Your task to perform on an android device: toggle airplane mode Image 0: 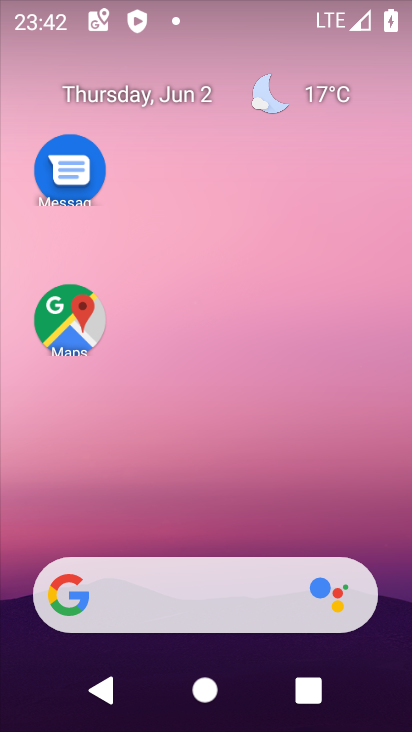
Step 0: press home button
Your task to perform on an android device: toggle airplane mode Image 1: 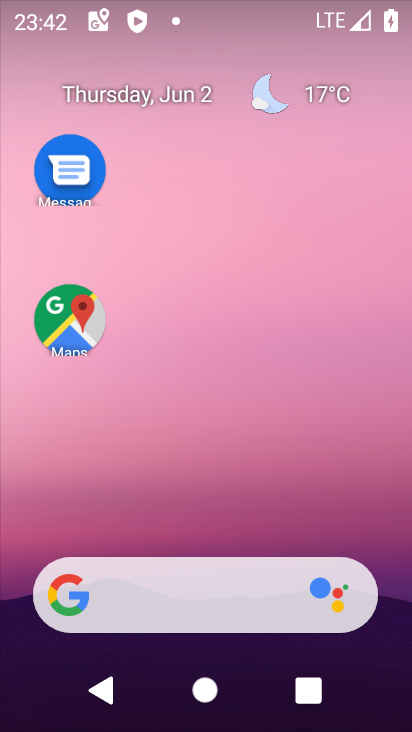
Step 1: drag from (341, 13) to (399, 582)
Your task to perform on an android device: toggle airplane mode Image 2: 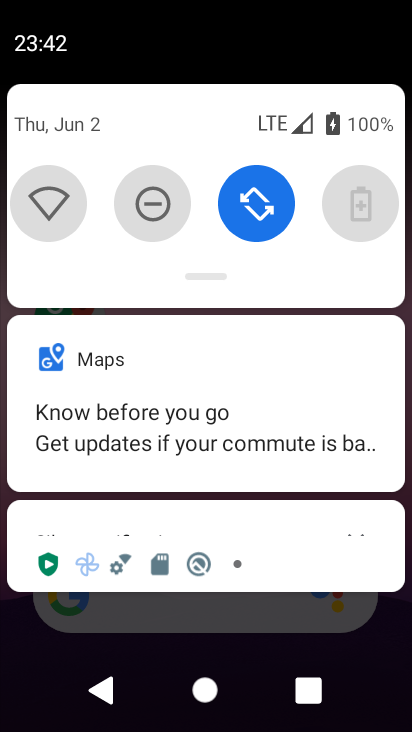
Step 2: drag from (220, 278) to (239, 563)
Your task to perform on an android device: toggle airplane mode Image 3: 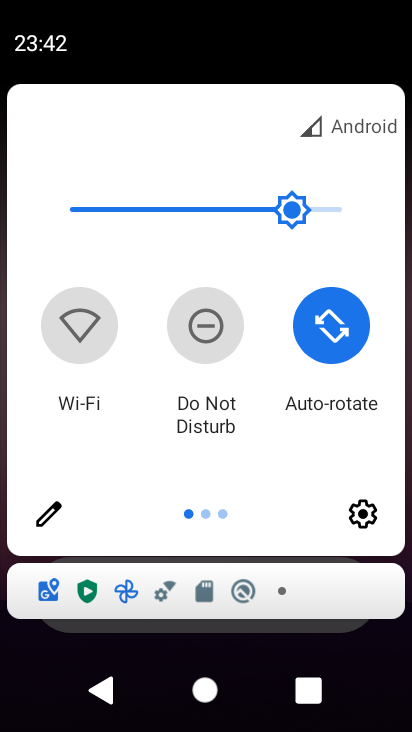
Step 3: drag from (395, 340) to (14, 433)
Your task to perform on an android device: toggle airplane mode Image 4: 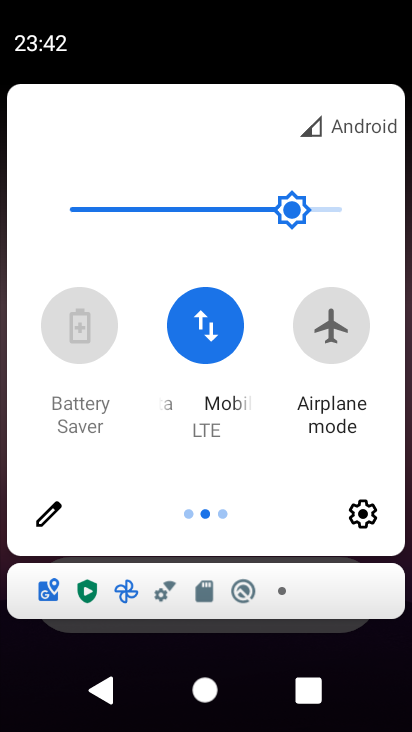
Step 4: click (348, 329)
Your task to perform on an android device: toggle airplane mode Image 5: 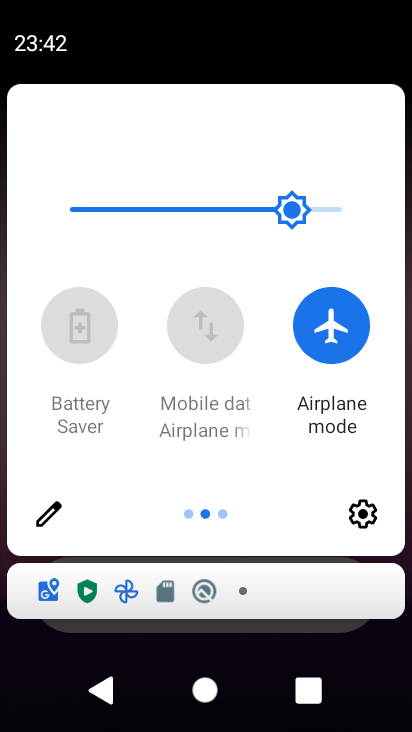
Step 5: task complete